Your task to perform on an android device: Add alienware aurora to the cart on target.com, then select checkout. Image 0: 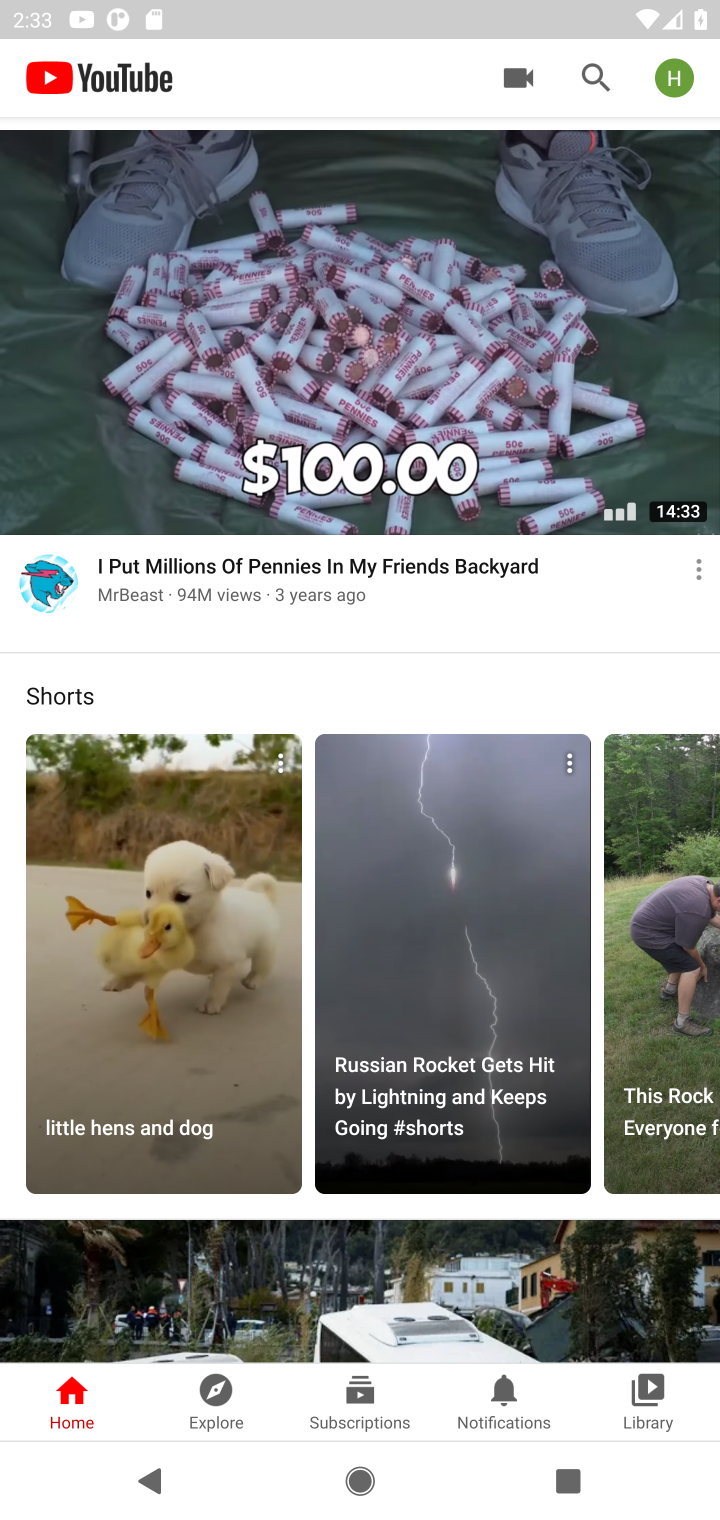
Step 0: press home button
Your task to perform on an android device: Add alienware aurora to the cart on target.com, then select checkout. Image 1: 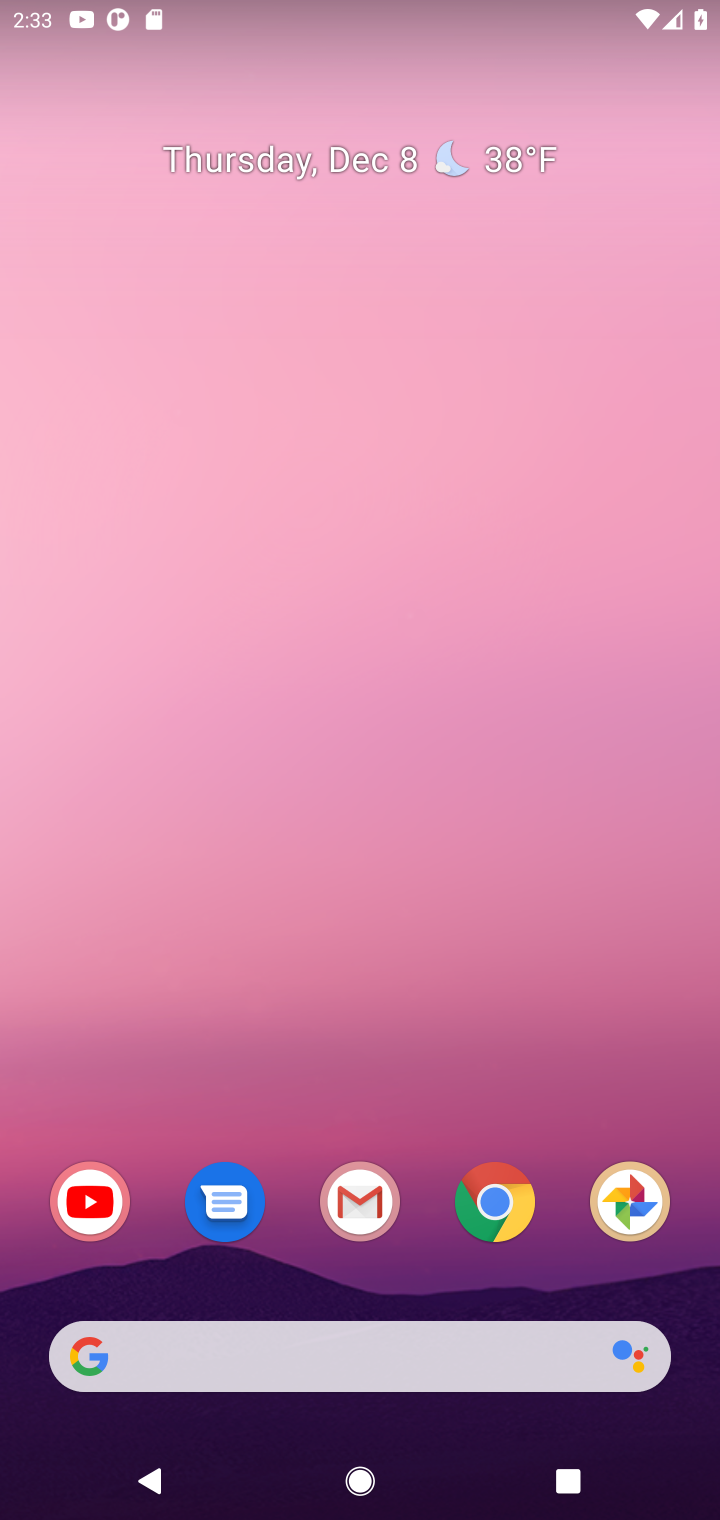
Step 1: click (509, 1185)
Your task to perform on an android device: Add alienware aurora to the cart on target.com, then select checkout. Image 2: 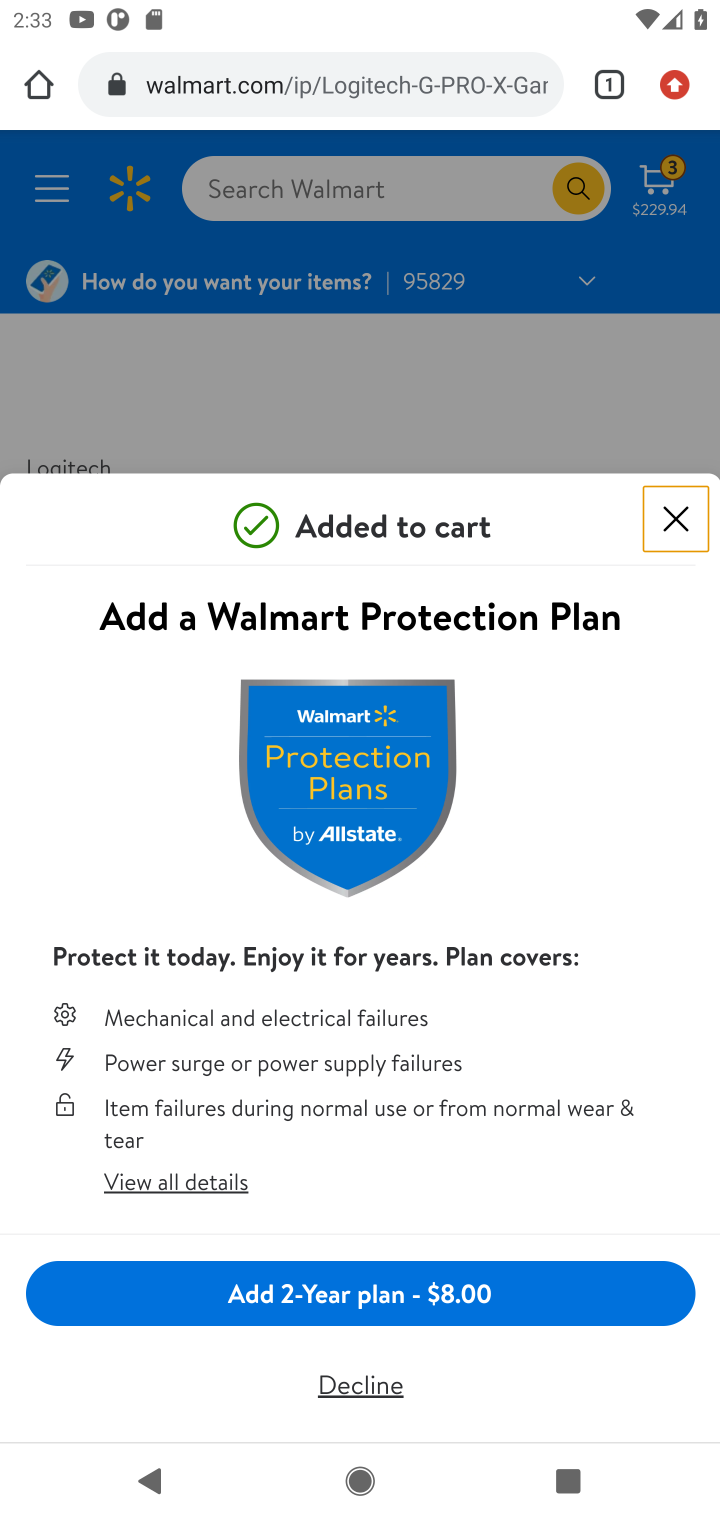
Step 2: click (366, 93)
Your task to perform on an android device: Add alienware aurora to the cart on target.com, then select checkout. Image 3: 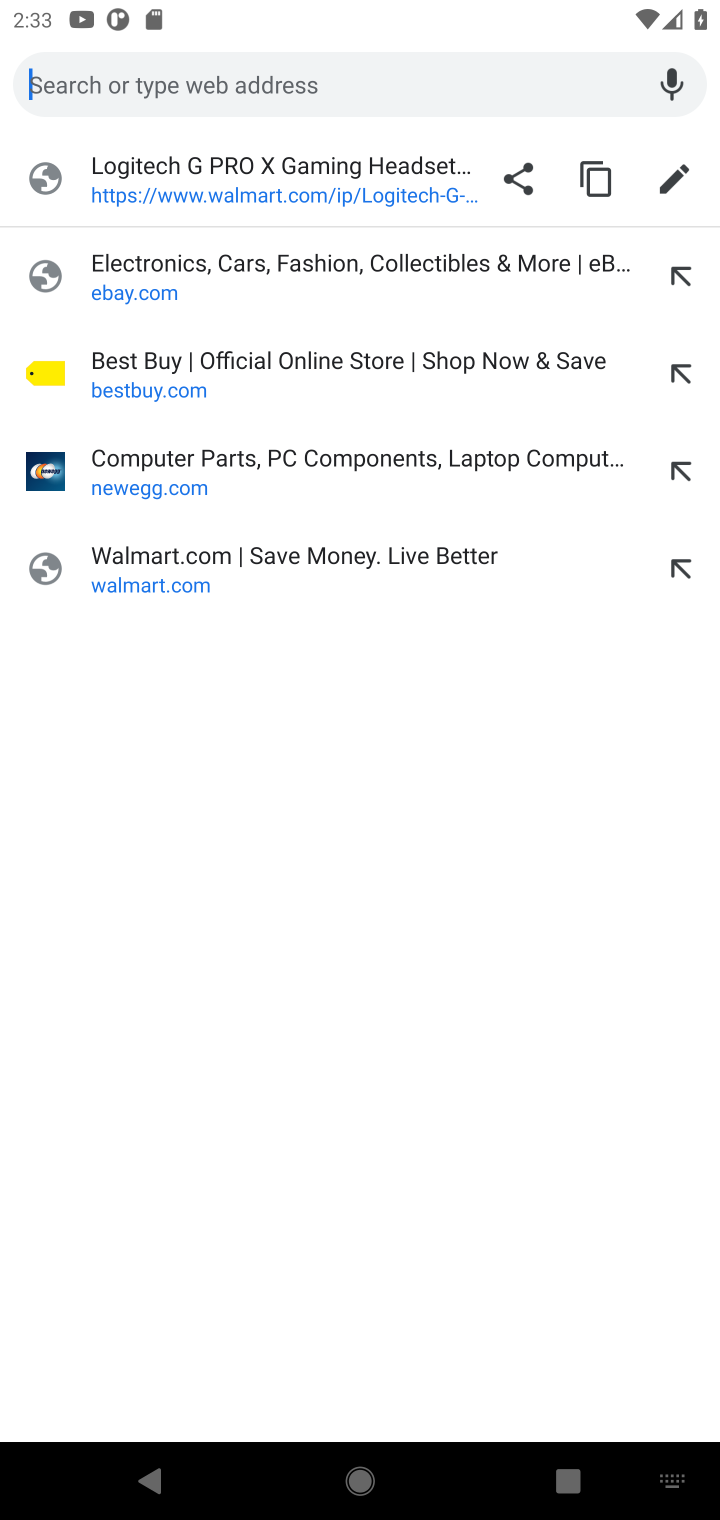
Step 3: type "target.com"
Your task to perform on an android device: Add alienware aurora to the cart on target.com, then select checkout. Image 4: 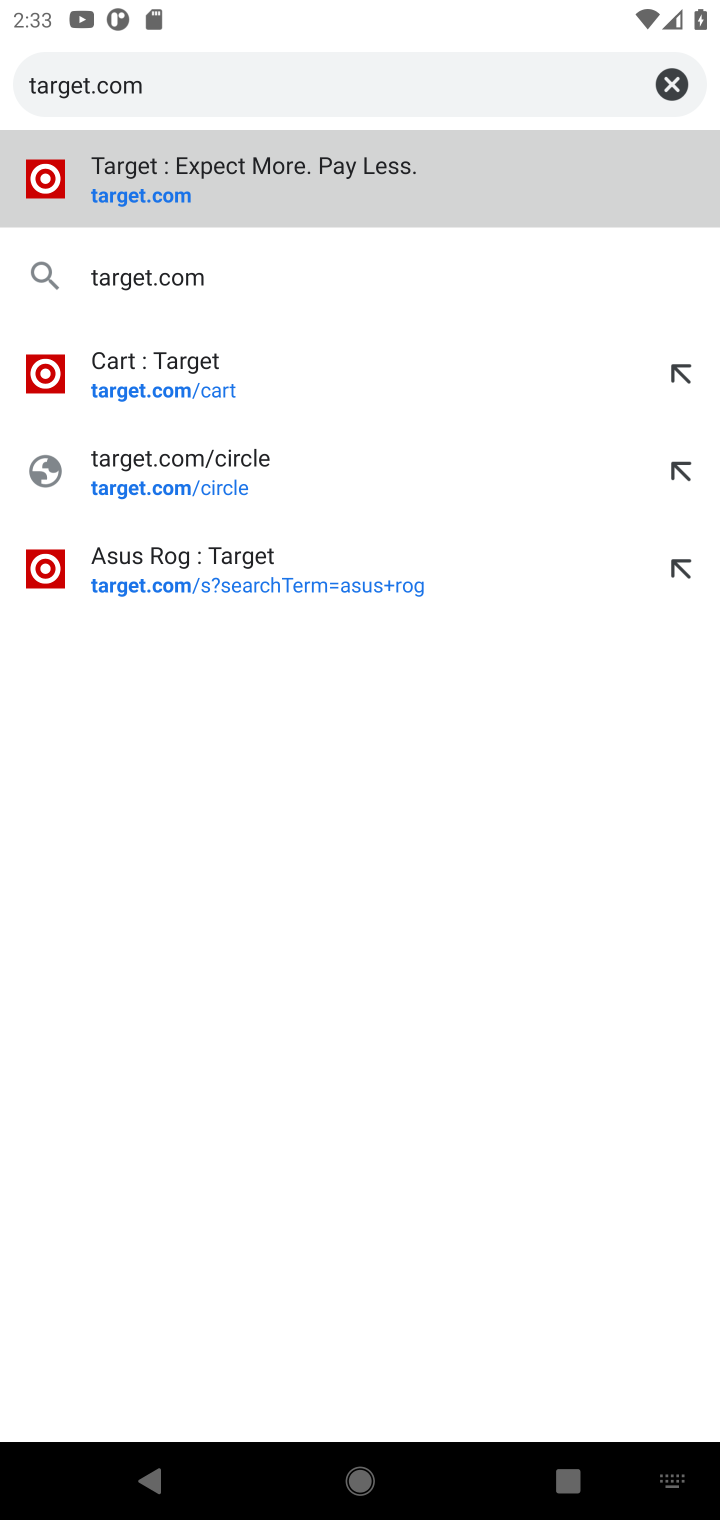
Step 4: press enter
Your task to perform on an android device: Add alienware aurora to the cart on target.com, then select checkout. Image 5: 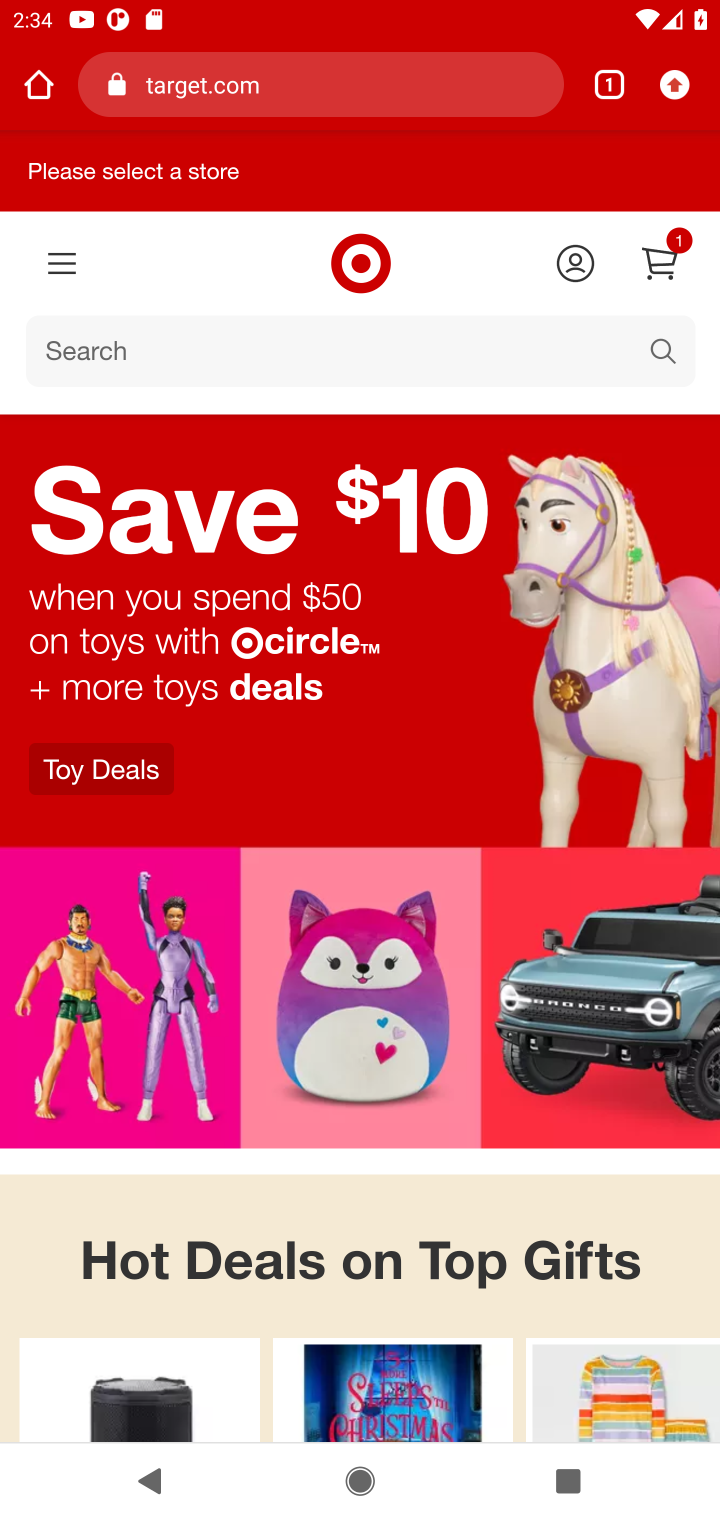
Step 5: click (672, 358)
Your task to perform on an android device: Add alienware aurora to the cart on target.com, then select checkout. Image 6: 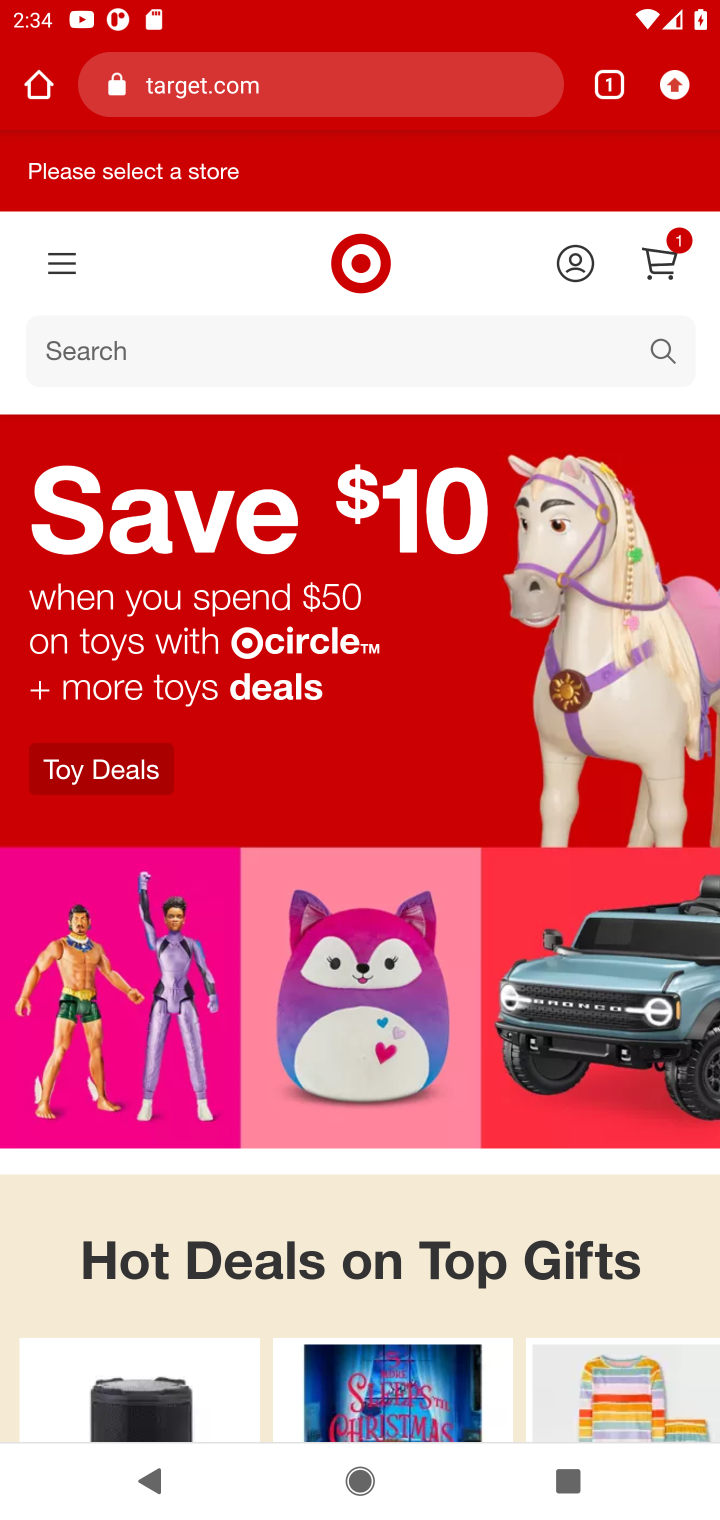
Step 6: press enter
Your task to perform on an android device: Add alienware aurora to the cart on target.com, then select checkout. Image 7: 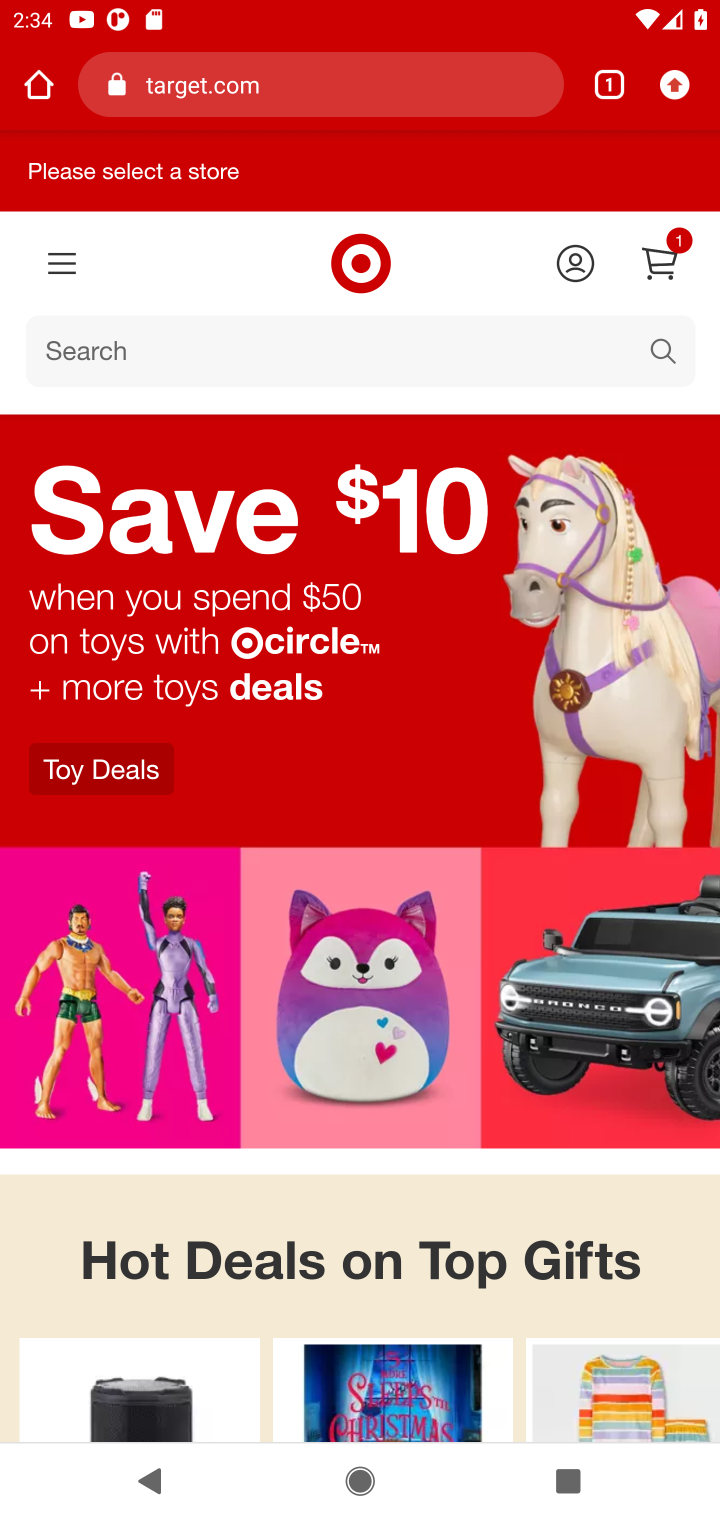
Step 7: type "alienware aurora"
Your task to perform on an android device: Add alienware aurora to the cart on target.com, then select checkout. Image 8: 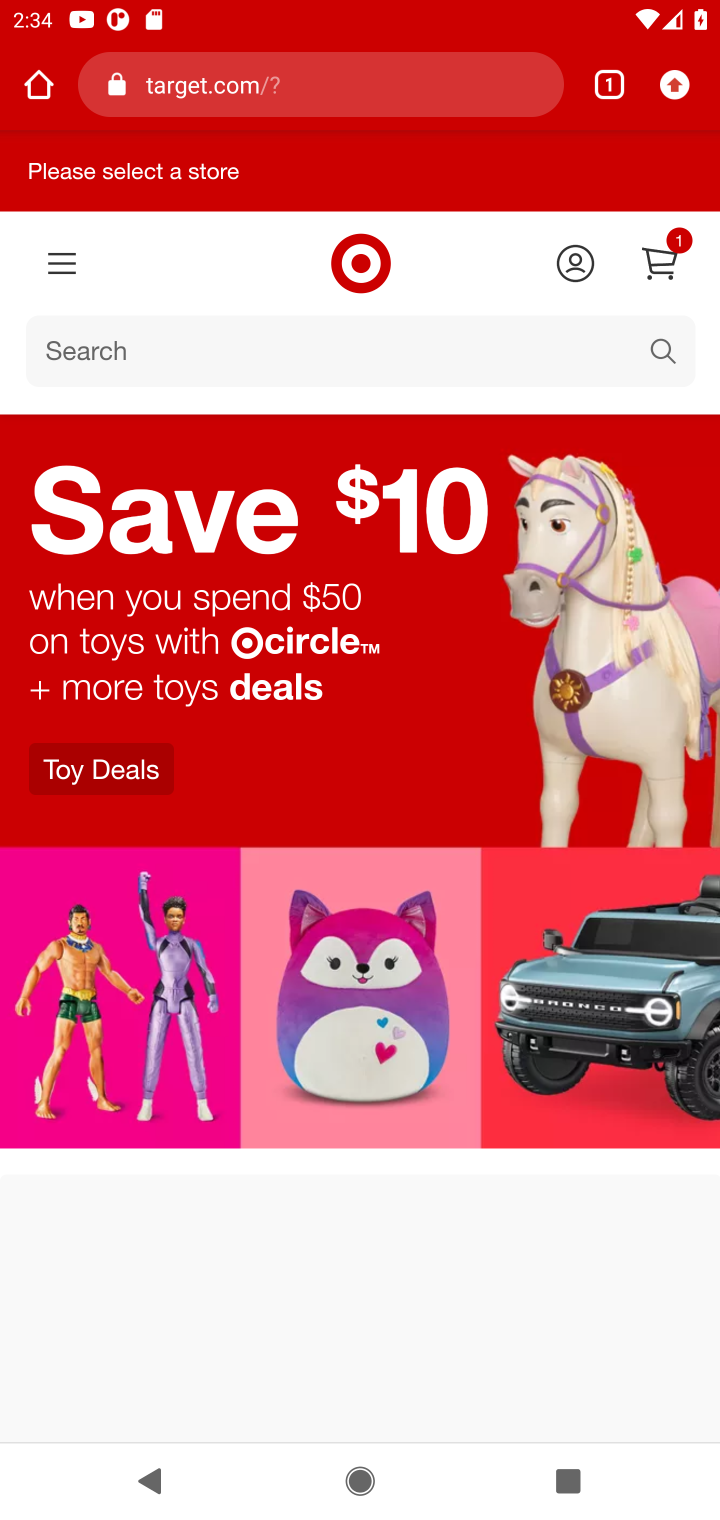
Step 8: click (654, 343)
Your task to perform on an android device: Add alienware aurora to the cart on target.com, then select checkout. Image 9: 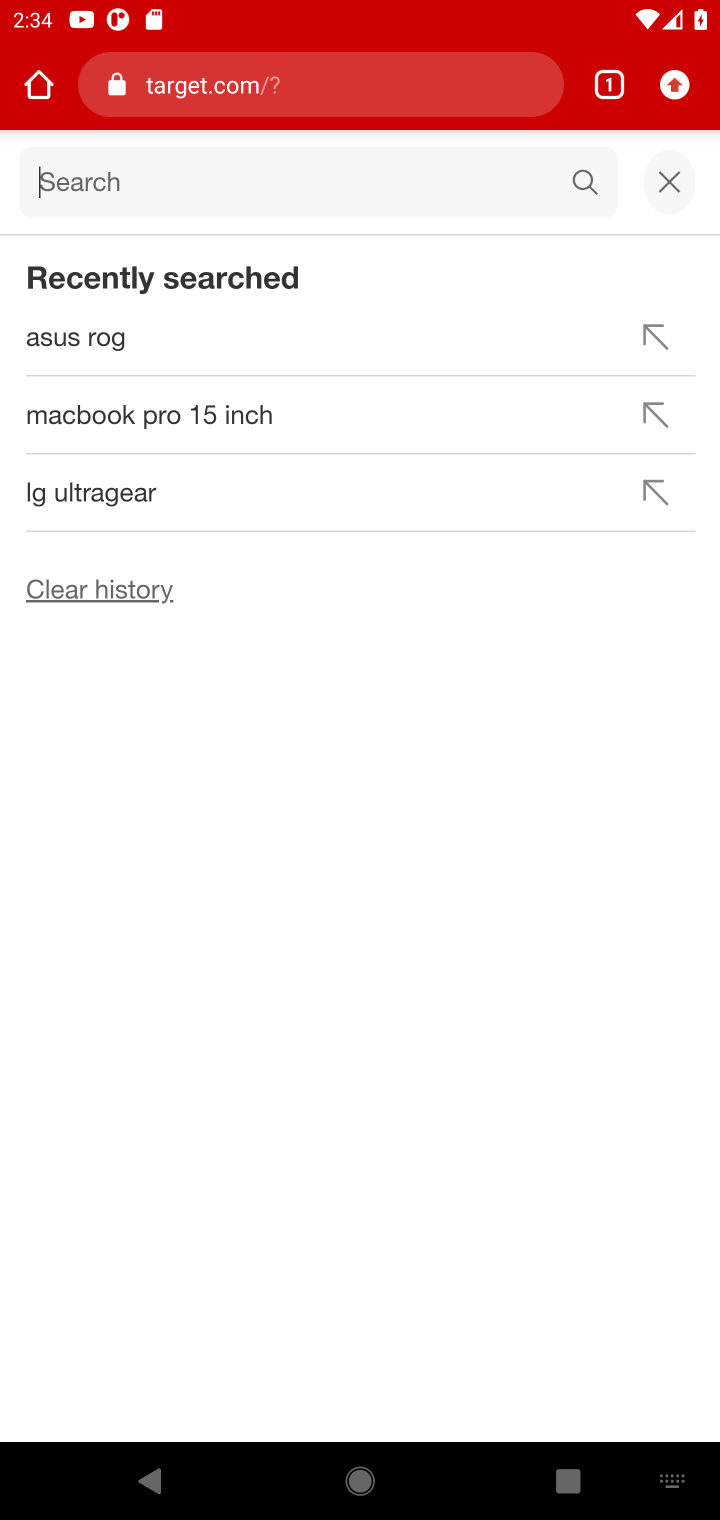
Step 9: press enter
Your task to perform on an android device: Add alienware aurora to the cart on target.com, then select checkout. Image 10: 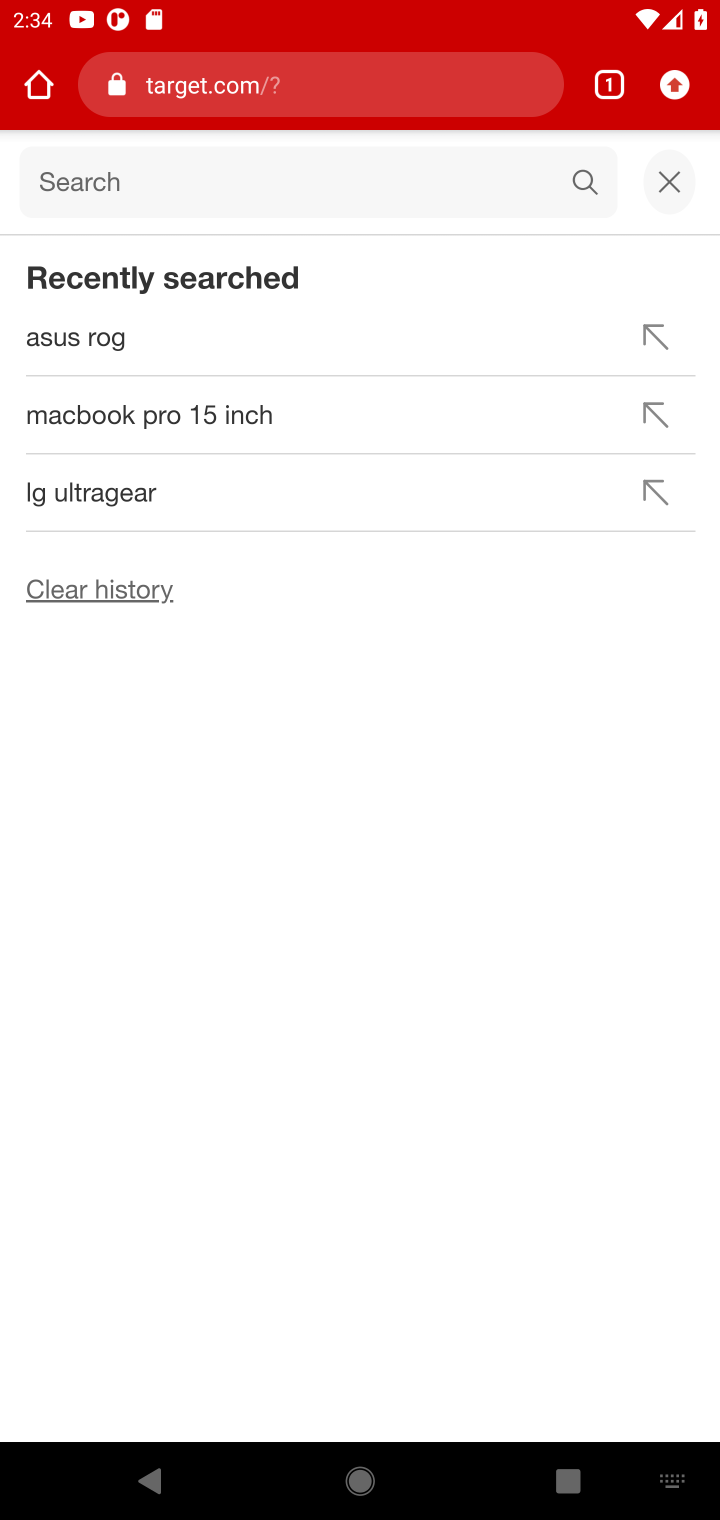
Step 10: type "alienware aurora"
Your task to perform on an android device: Add alienware aurora to the cart on target.com, then select checkout. Image 11: 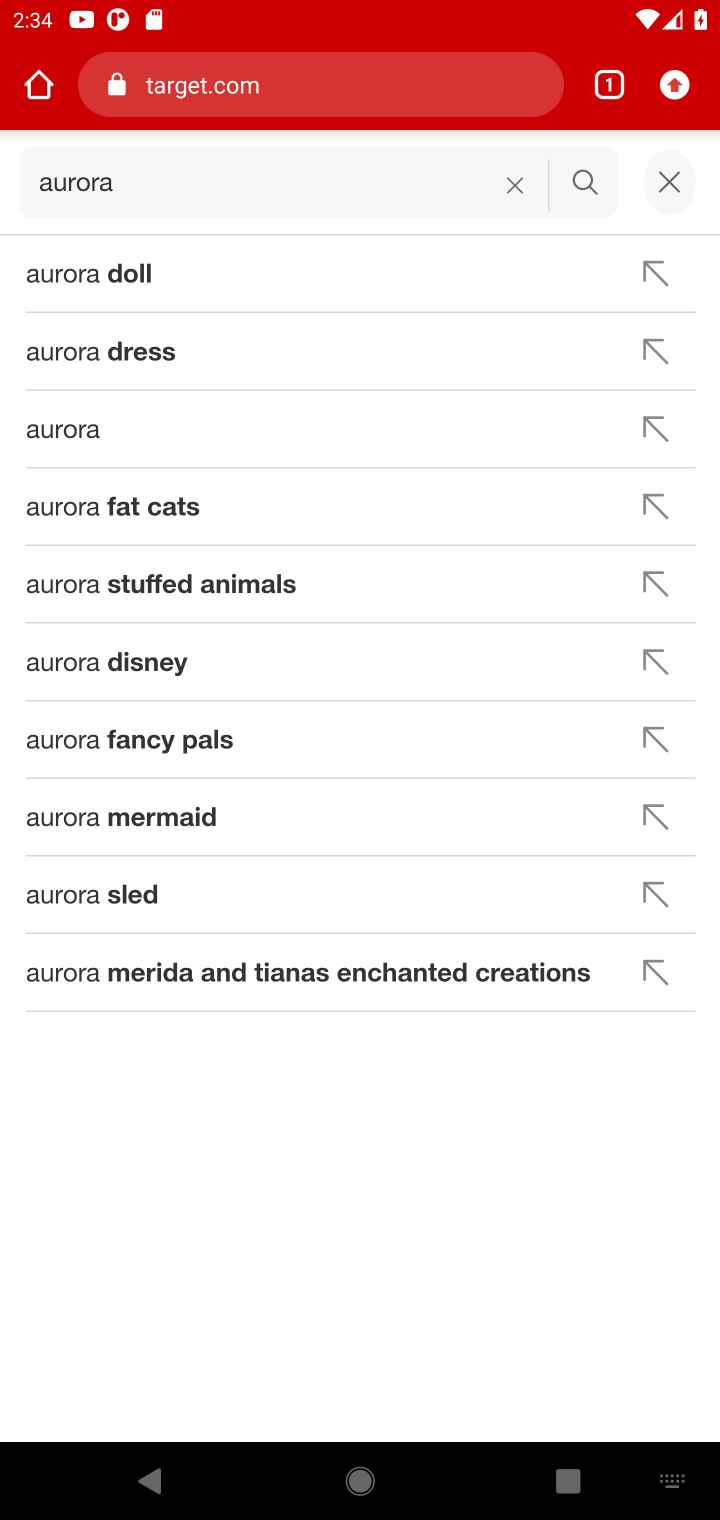
Step 11: click (505, 193)
Your task to perform on an android device: Add alienware aurora to the cart on target.com, then select checkout. Image 12: 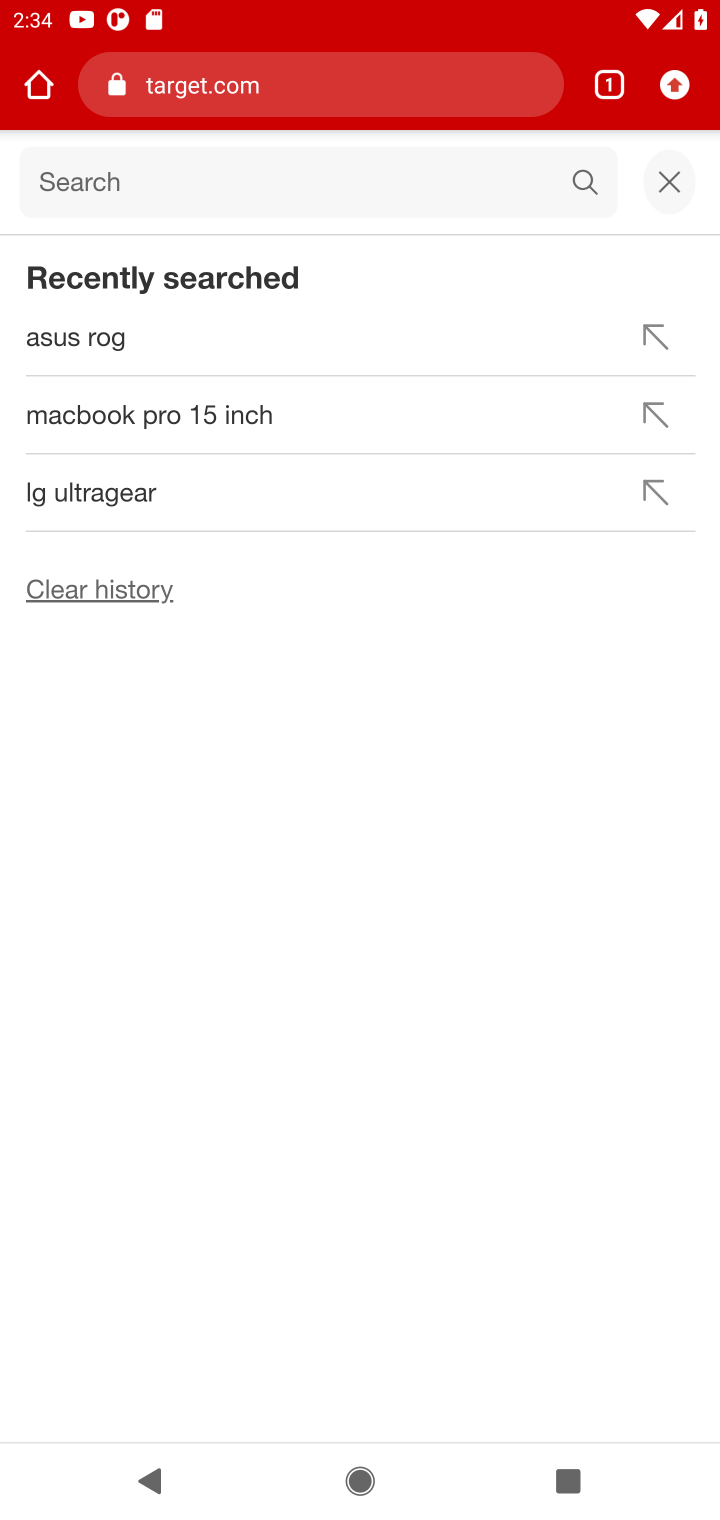
Step 12: type "alienware aurora"
Your task to perform on an android device: Add alienware aurora to the cart on target.com, then select checkout. Image 13: 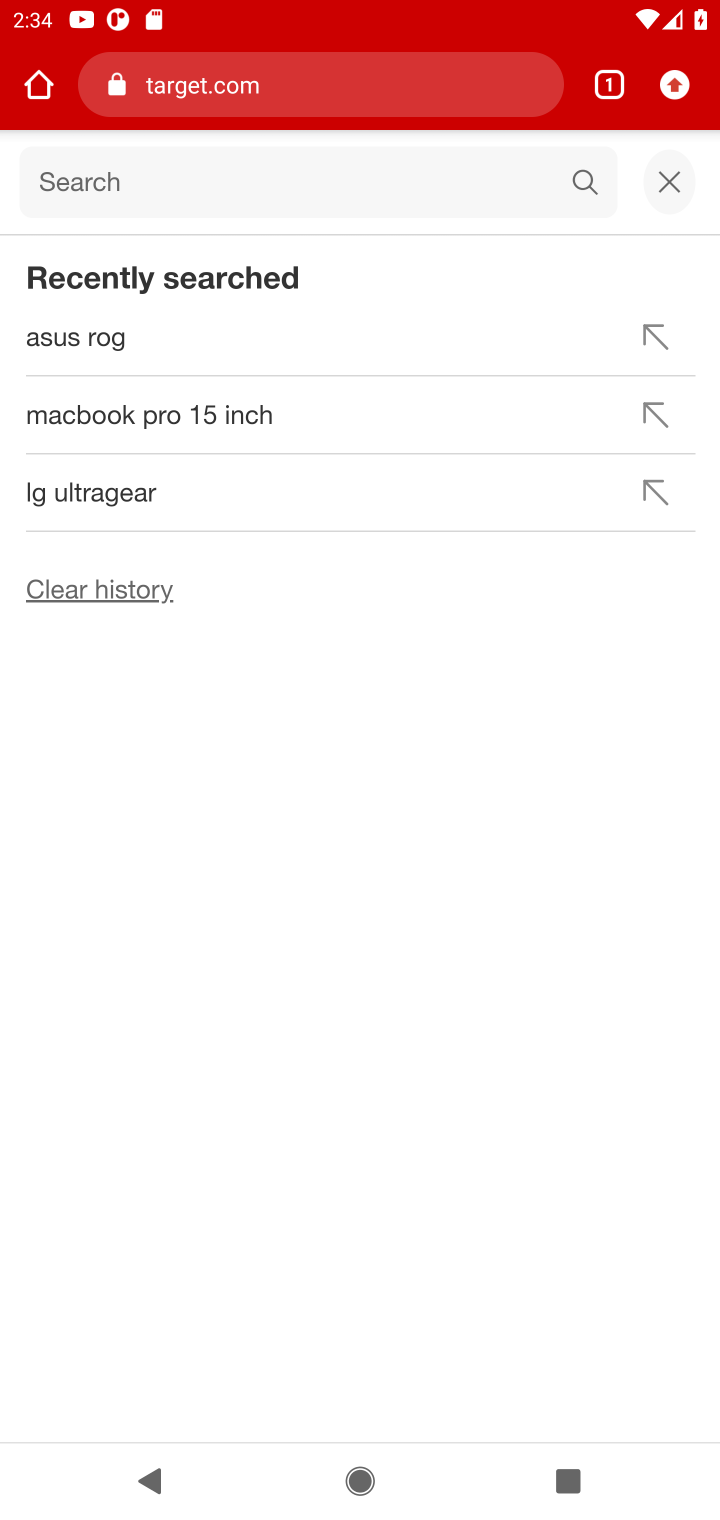
Step 13: press enter
Your task to perform on an android device: Add alienware aurora to the cart on target.com, then select checkout. Image 14: 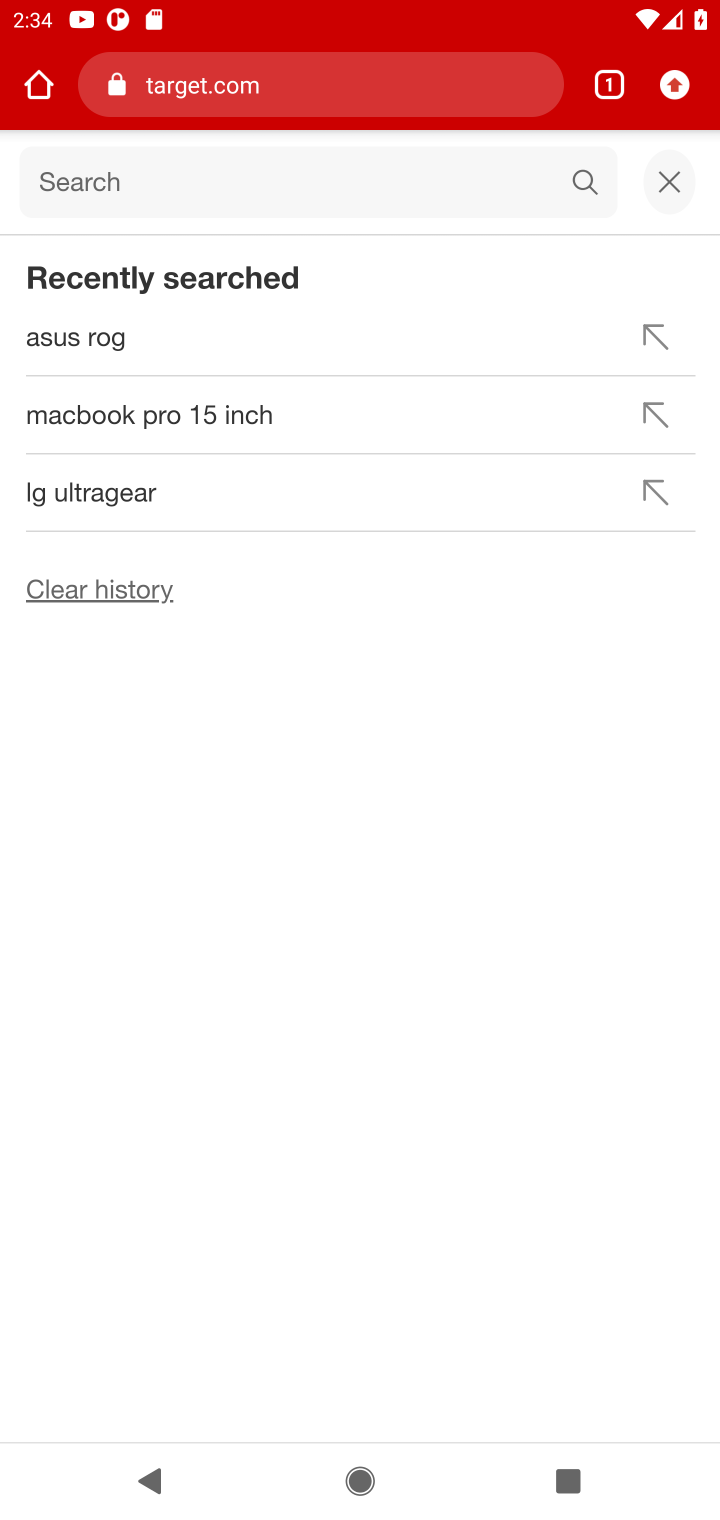
Step 14: click (375, 170)
Your task to perform on an android device: Add alienware aurora to the cart on target.com, then select checkout. Image 15: 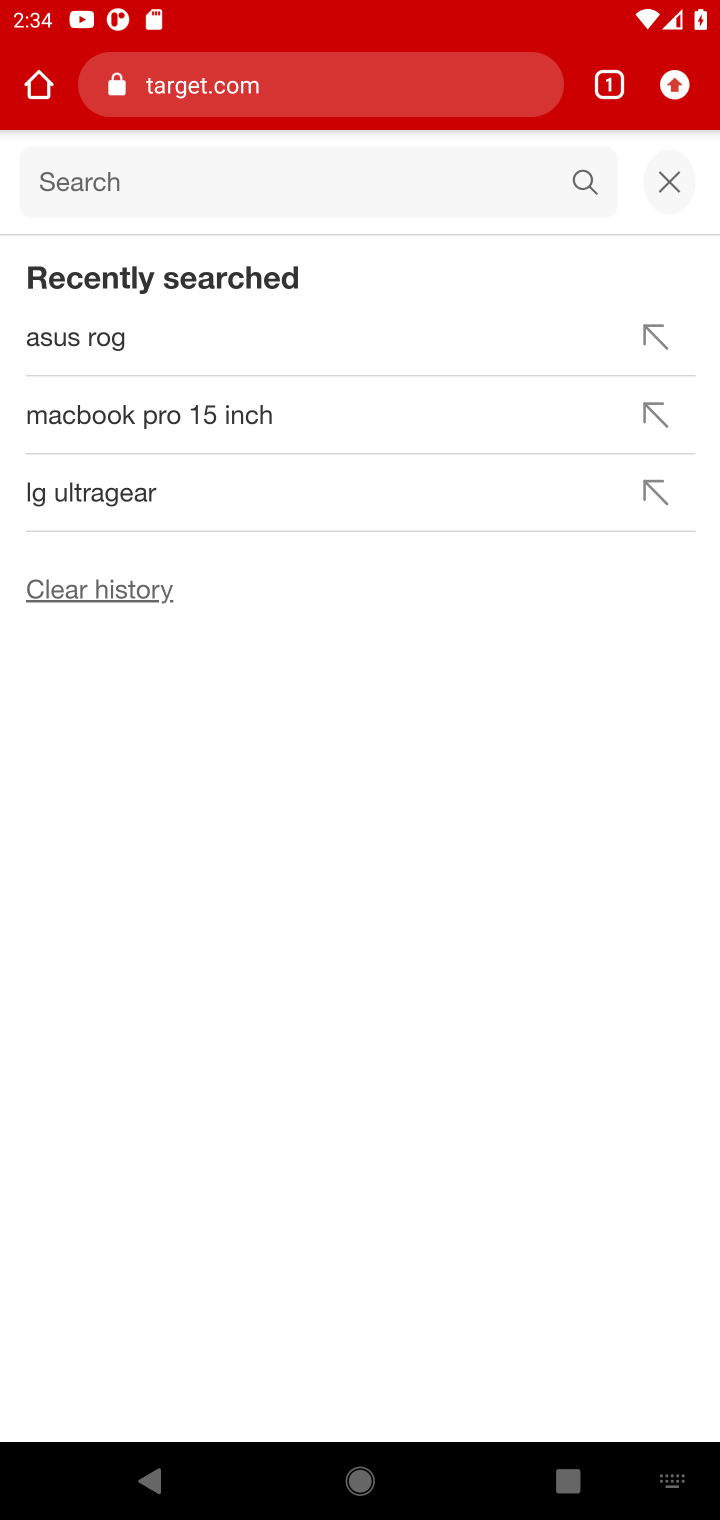
Step 15: click (375, 170)
Your task to perform on an android device: Add alienware aurora to the cart on target.com, then select checkout. Image 16: 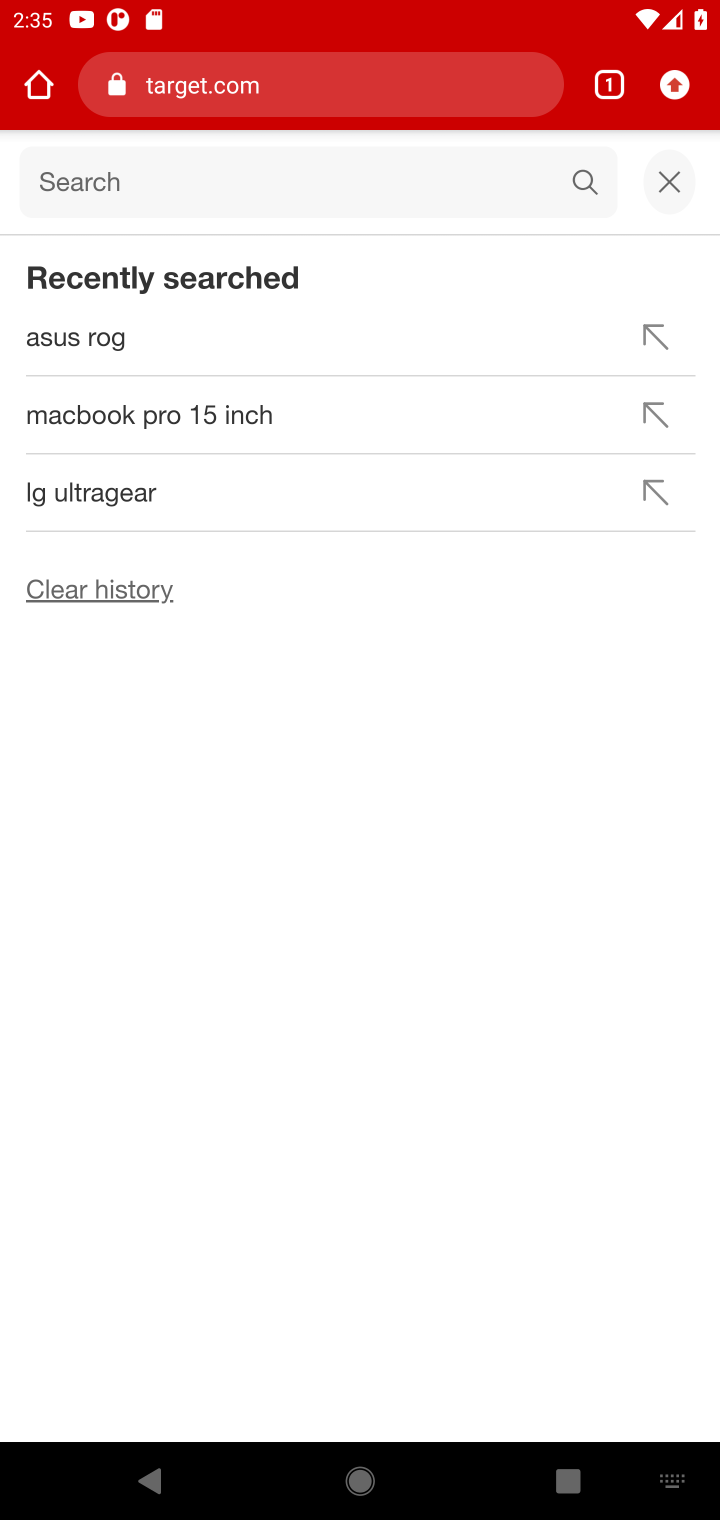
Step 16: type "alienware aurora"
Your task to perform on an android device: Add alienware aurora to the cart on target.com, then select checkout. Image 17: 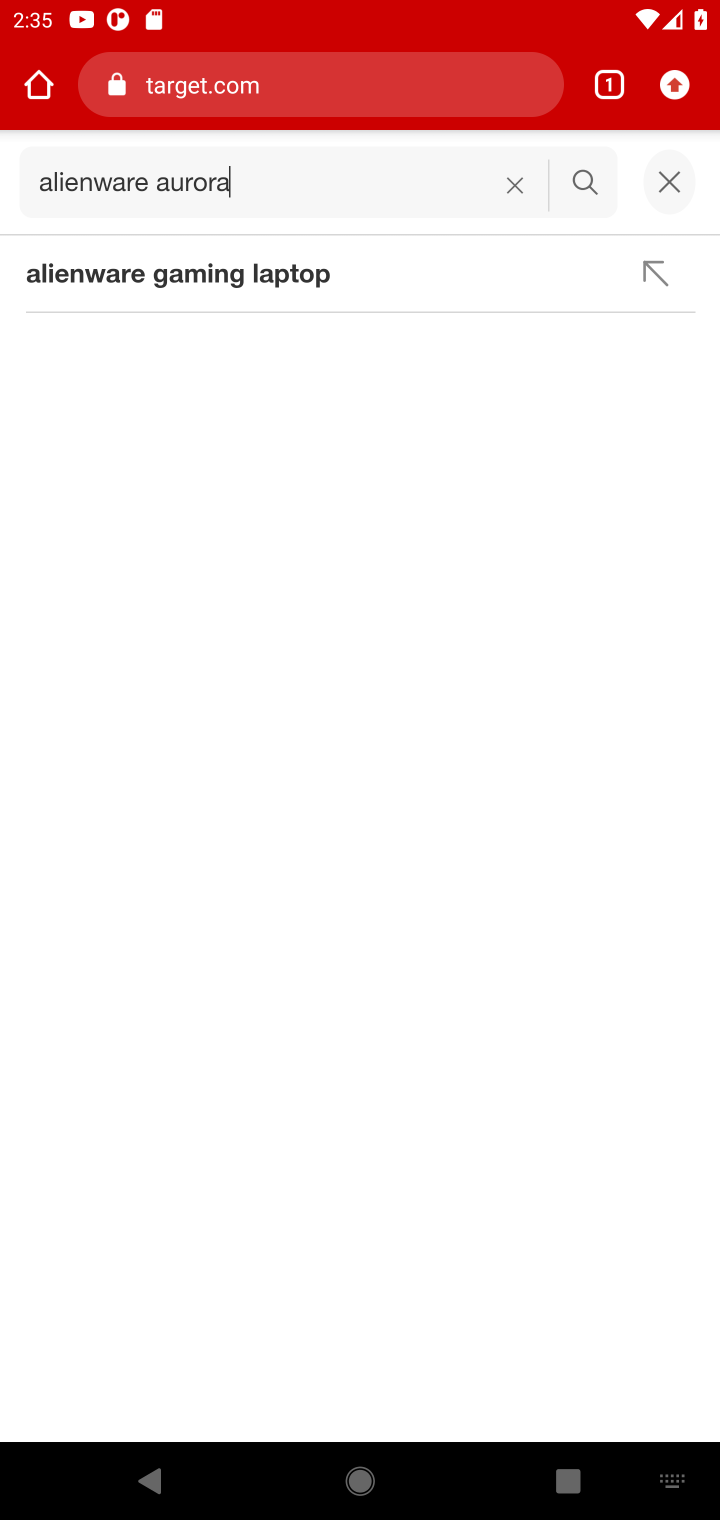
Step 17: press enter
Your task to perform on an android device: Add alienware aurora to the cart on target.com, then select checkout. Image 18: 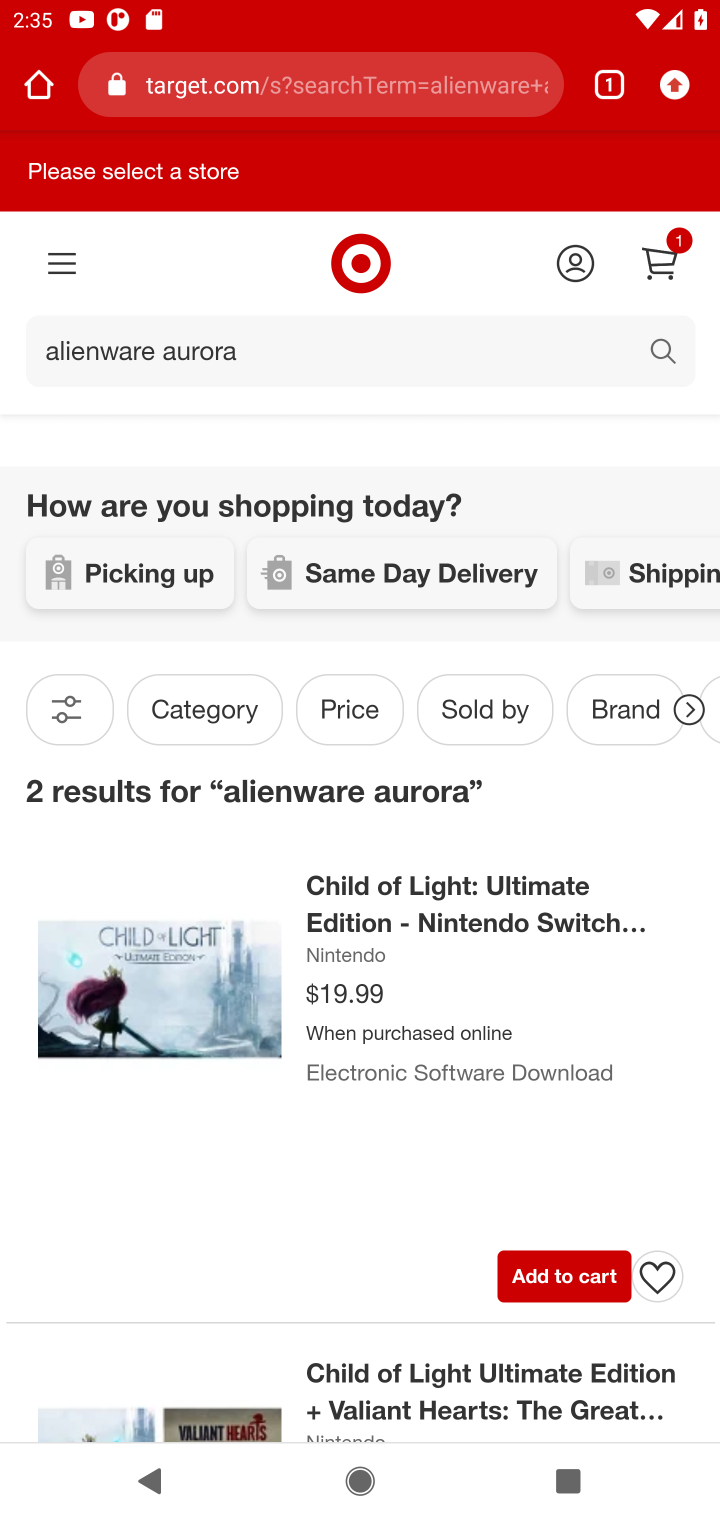
Step 18: task complete